Your task to perform on an android device: Open CNN.com Image 0: 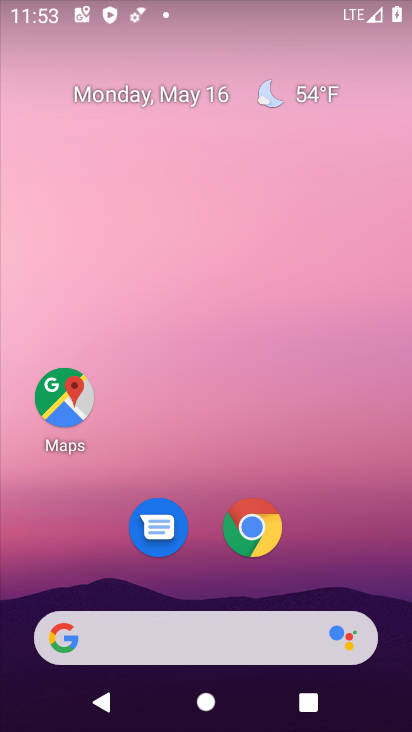
Step 0: drag from (298, 656) to (258, 204)
Your task to perform on an android device: Open CNN.com Image 1: 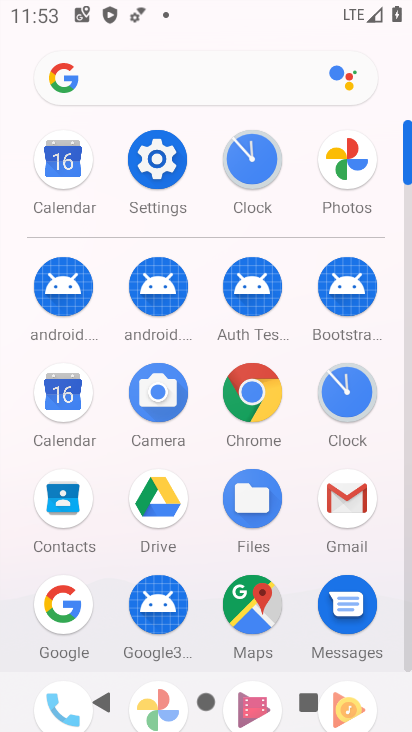
Step 1: click (250, 394)
Your task to perform on an android device: Open CNN.com Image 2: 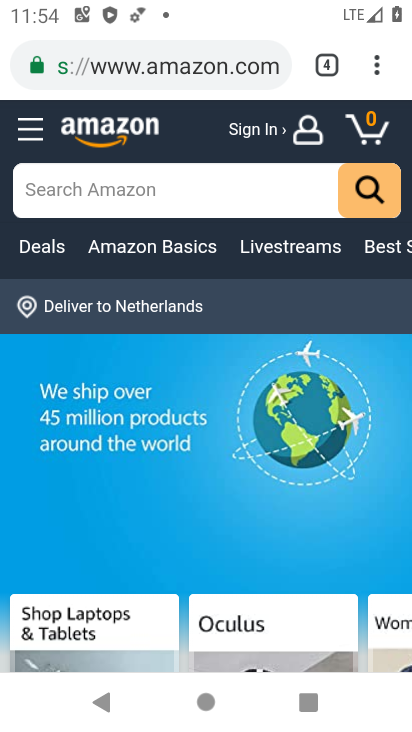
Step 2: click (204, 65)
Your task to perform on an android device: Open CNN.com Image 3: 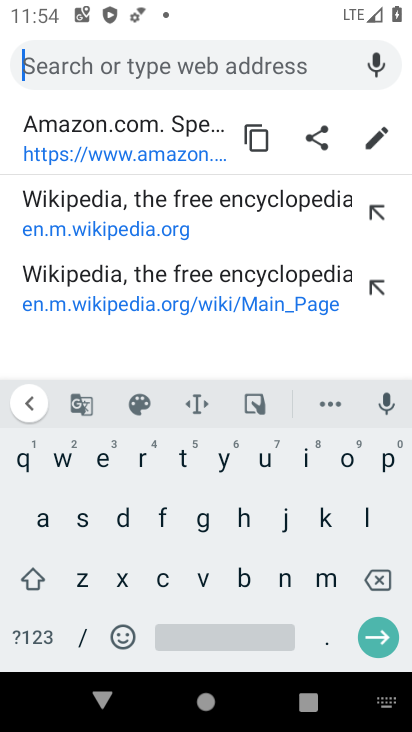
Step 3: click (158, 580)
Your task to perform on an android device: Open CNN.com Image 4: 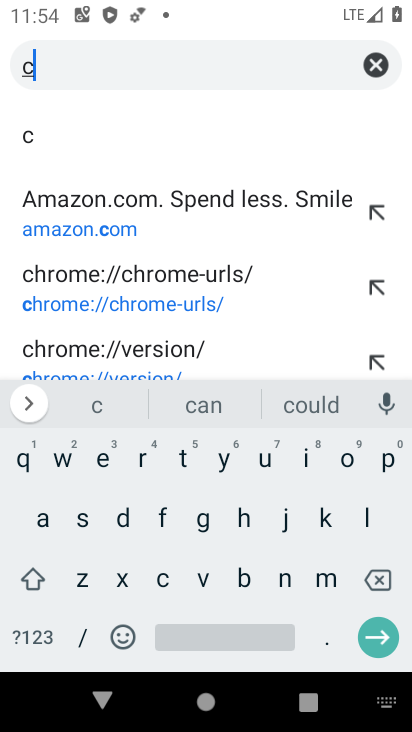
Step 4: click (287, 576)
Your task to perform on an android device: Open CNN.com Image 5: 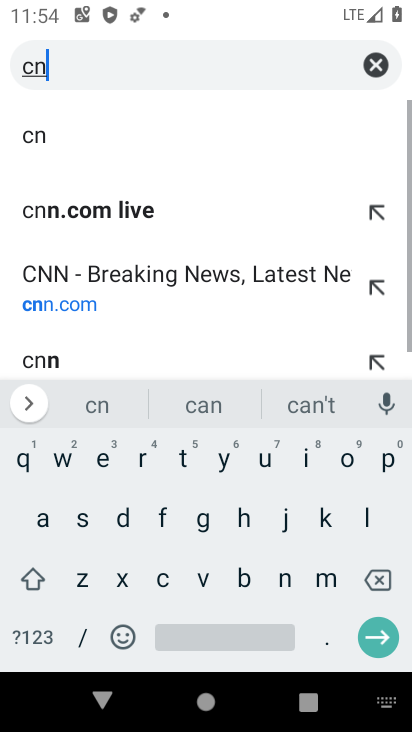
Step 5: click (287, 576)
Your task to perform on an android device: Open CNN.com Image 6: 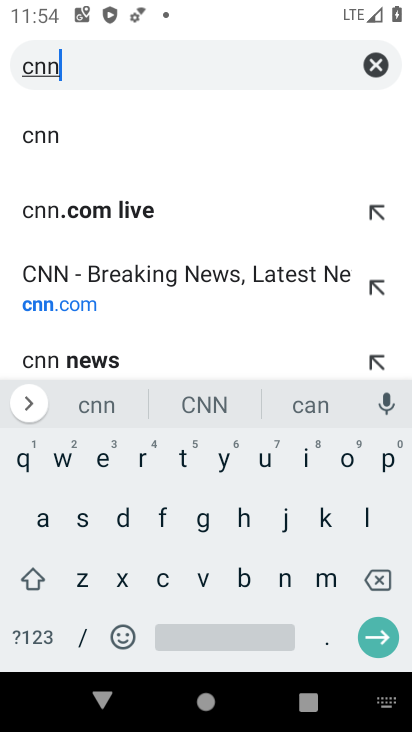
Step 6: click (324, 643)
Your task to perform on an android device: Open CNN.com Image 7: 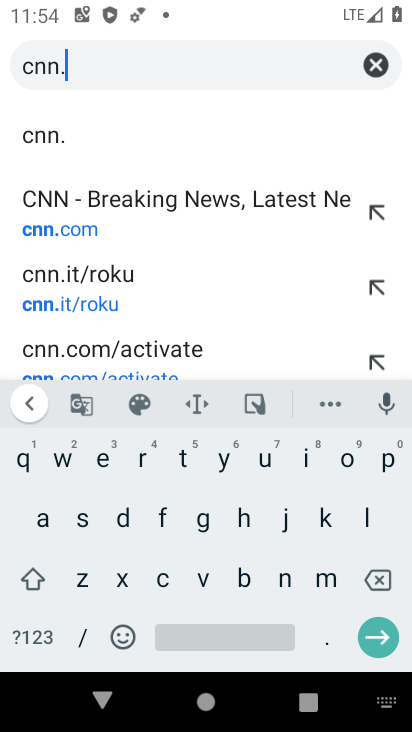
Step 7: click (156, 580)
Your task to perform on an android device: Open CNN.com Image 8: 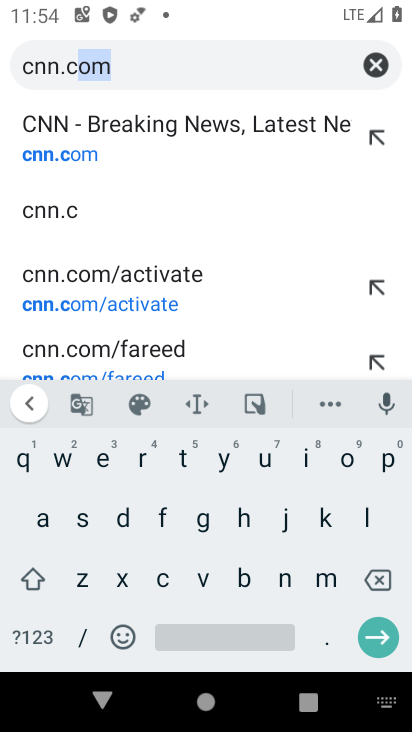
Step 8: click (124, 76)
Your task to perform on an android device: Open CNN.com Image 9: 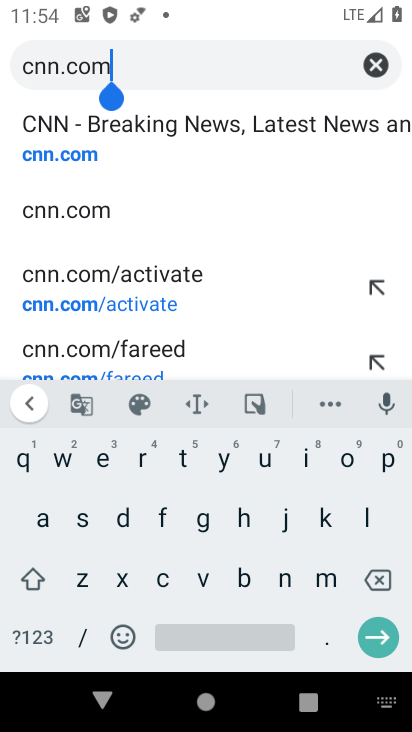
Step 9: click (373, 638)
Your task to perform on an android device: Open CNN.com Image 10: 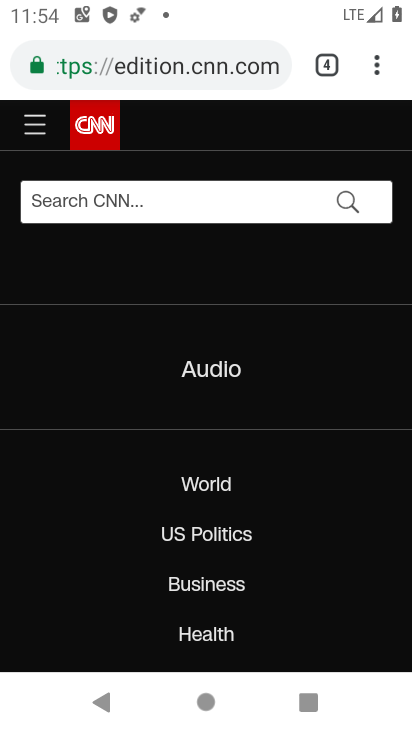
Step 10: task complete